Your task to perform on an android device: Open settings on Google Maps Image 0: 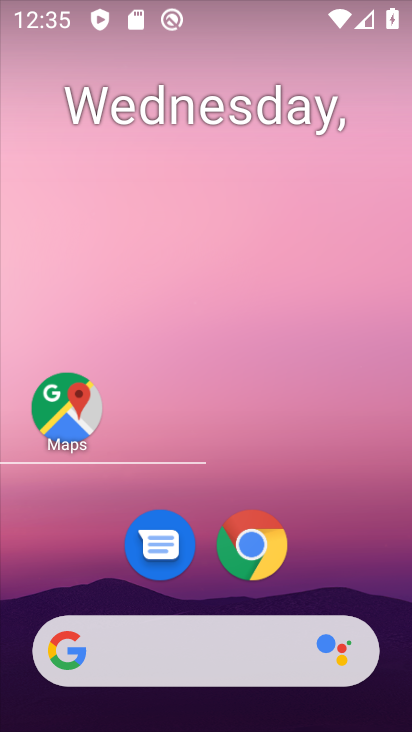
Step 0: drag from (363, 539) to (310, 177)
Your task to perform on an android device: Open settings on Google Maps Image 1: 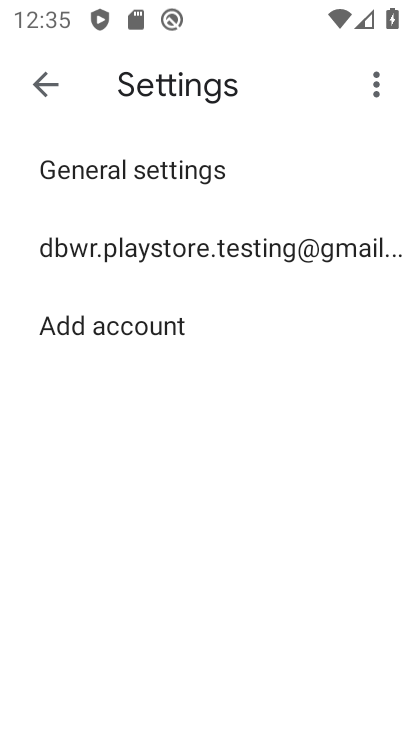
Step 1: press home button
Your task to perform on an android device: Open settings on Google Maps Image 2: 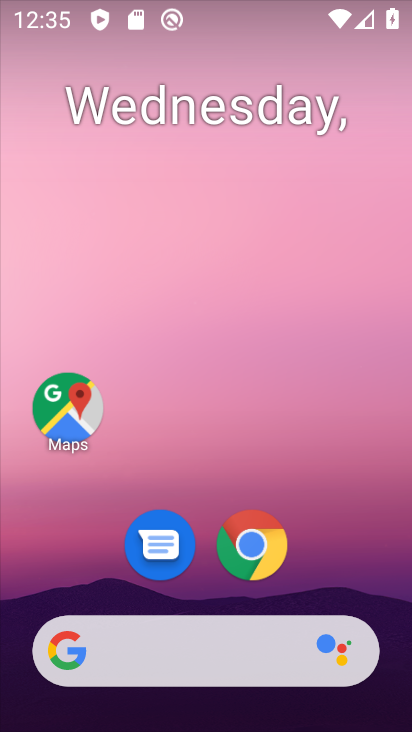
Step 2: click (70, 413)
Your task to perform on an android device: Open settings on Google Maps Image 3: 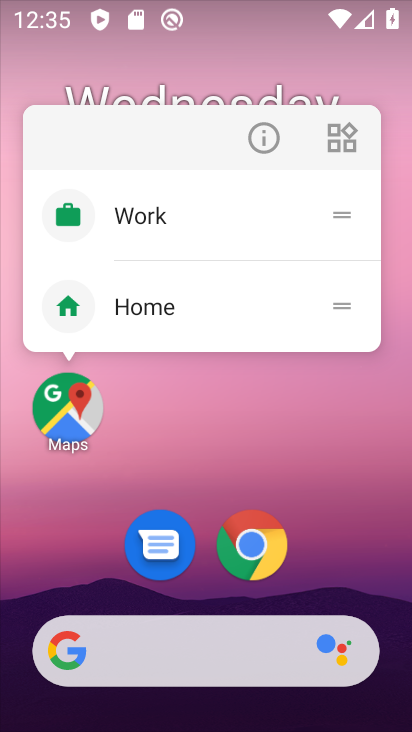
Step 3: click (59, 411)
Your task to perform on an android device: Open settings on Google Maps Image 4: 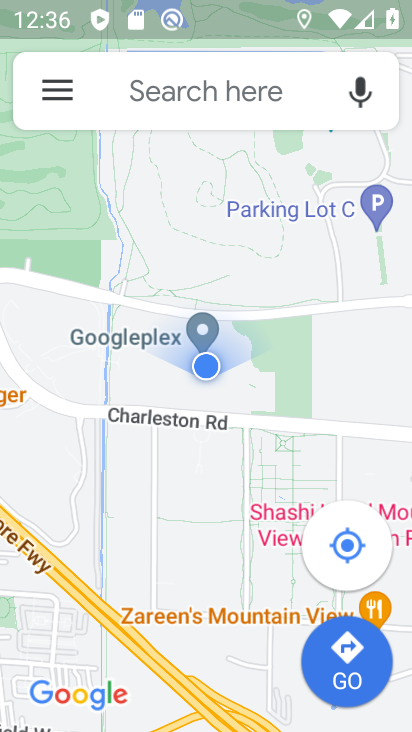
Step 4: click (64, 88)
Your task to perform on an android device: Open settings on Google Maps Image 5: 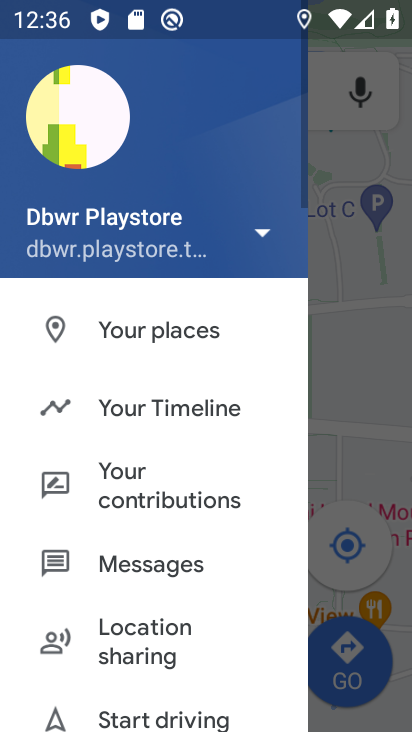
Step 5: drag from (67, 528) to (188, 44)
Your task to perform on an android device: Open settings on Google Maps Image 6: 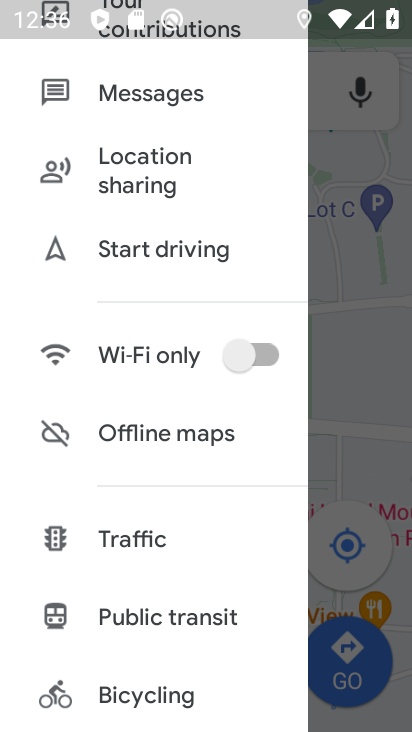
Step 6: drag from (118, 530) to (209, 111)
Your task to perform on an android device: Open settings on Google Maps Image 7: 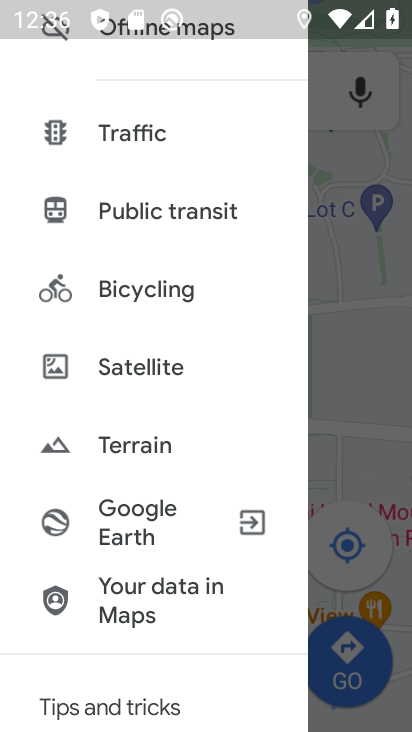
Step 7: drag from (127, 644) to (200, 181)
Your task to perform on an android device: Open settings on Google Maps Image 8: 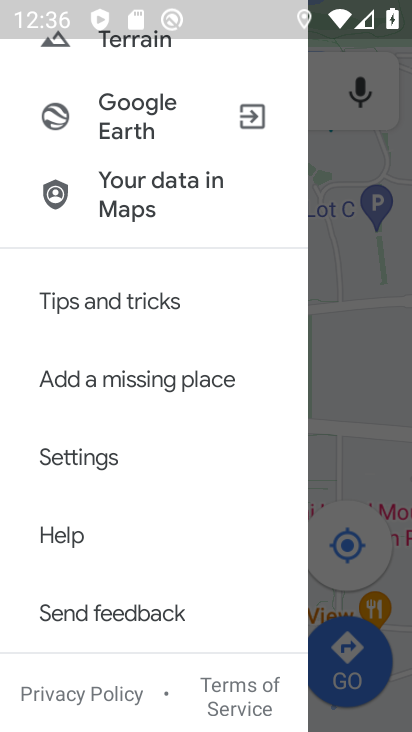
Step 8: click (98, 475)
Your task to perform on an android device: Open settings on Google Maps Image 9: 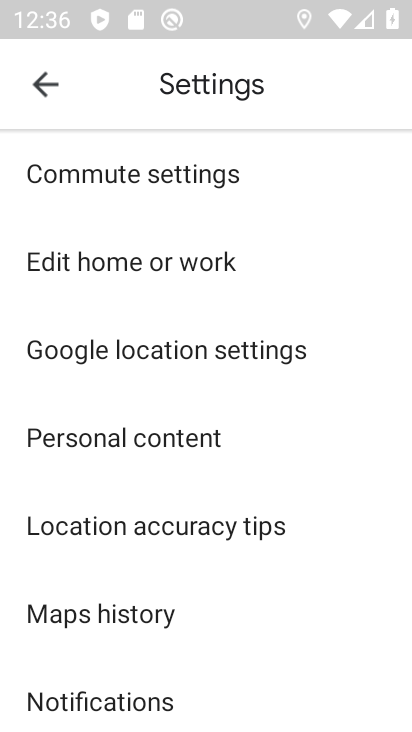
Step 9: task complete